Your task to perform on an android device: Search for pizza restaurants on Maps Image 0: 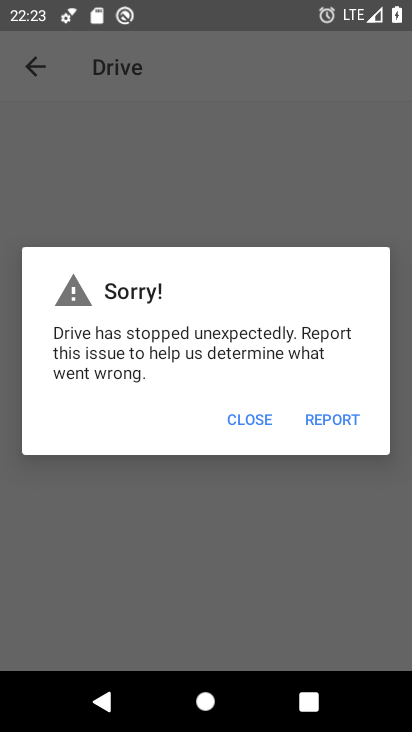
Step 0: press home button
Your task to perform on an android device: Search for pizza restaurants on Maps Image 1: 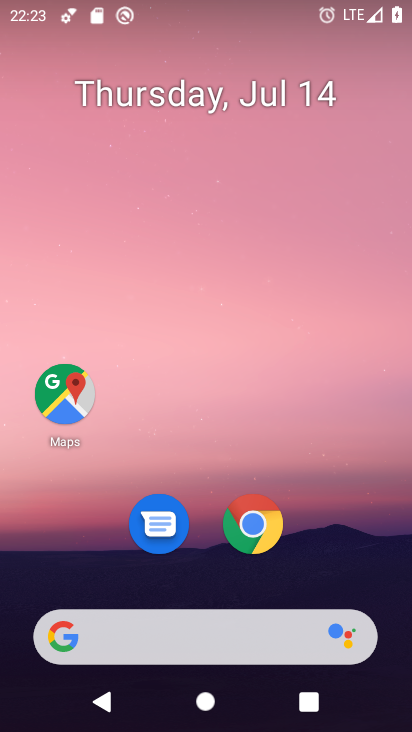
Step 1: click (53, 399)
Your task to perform on an android device: Search for pizza restaurants on Maps Image 2: 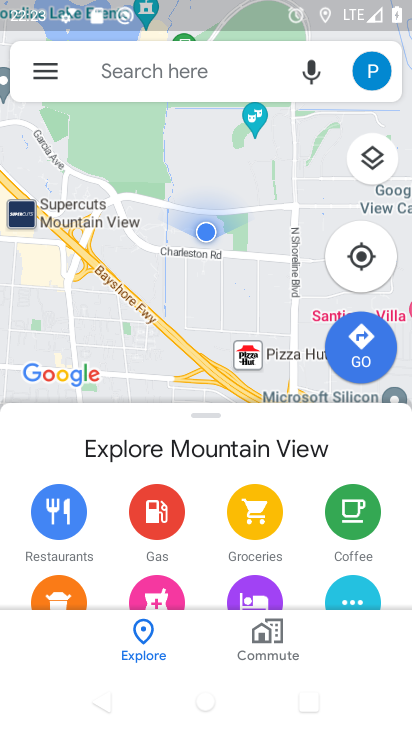
Step 2: click (148, 69)
Your task to perform on an android device: Search for pizza restaurants on Maps Image 3: 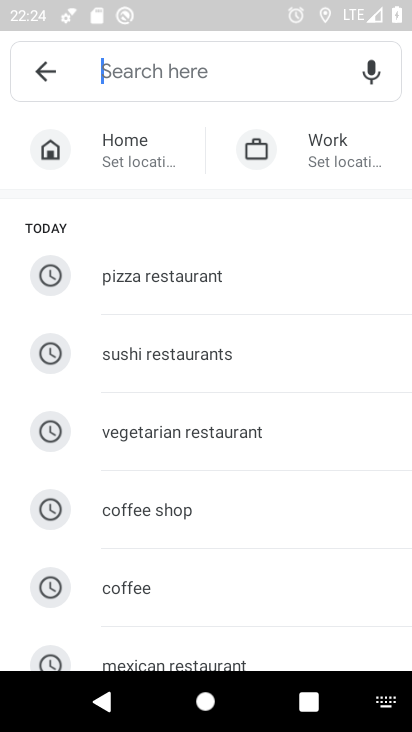
Step 3: click (162, 269)
Your task to perform on an android device: Search for pizza restaurants on Maps Image 4: 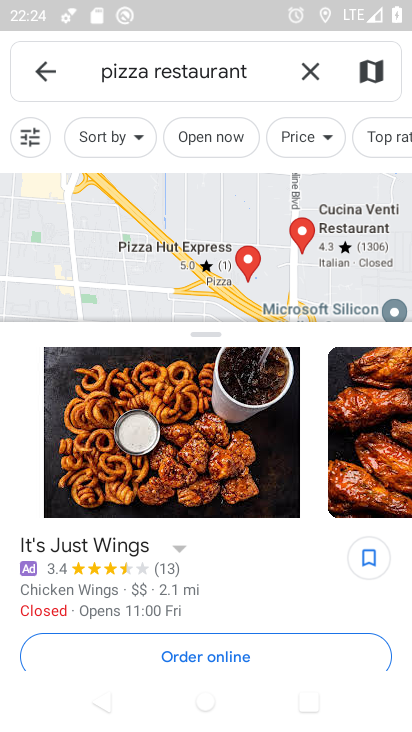
Step 4: task complete